Your task to perform on an android device: Open network settings Image 0: 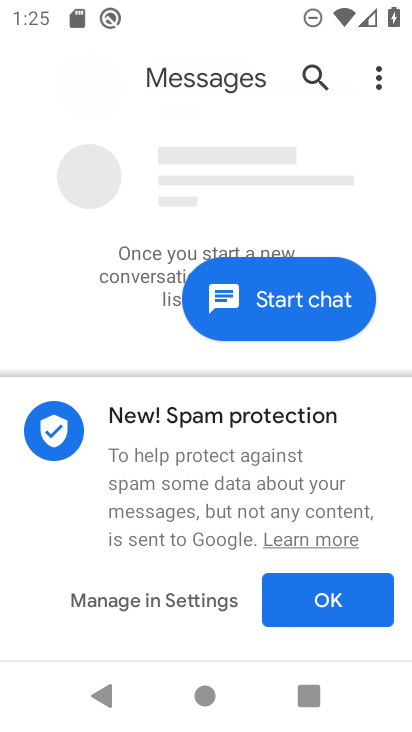
Step 0: press home button
Your task to perform on an android device: Open network settings Image 1: 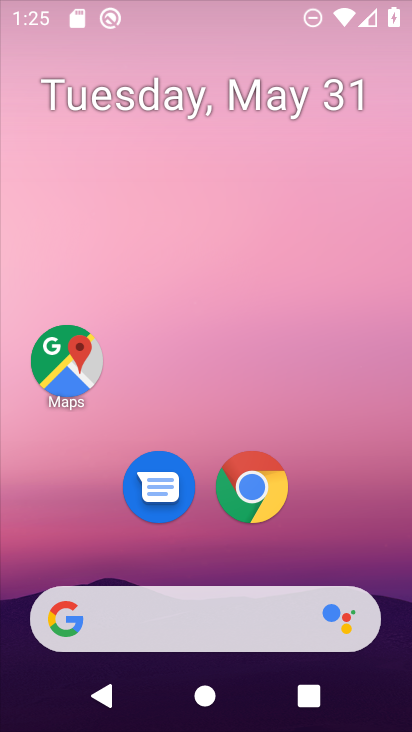
Step 1: drag from (66, 595) to (291, 24)
Your task to perform on an android device: Open network settings Image 2: 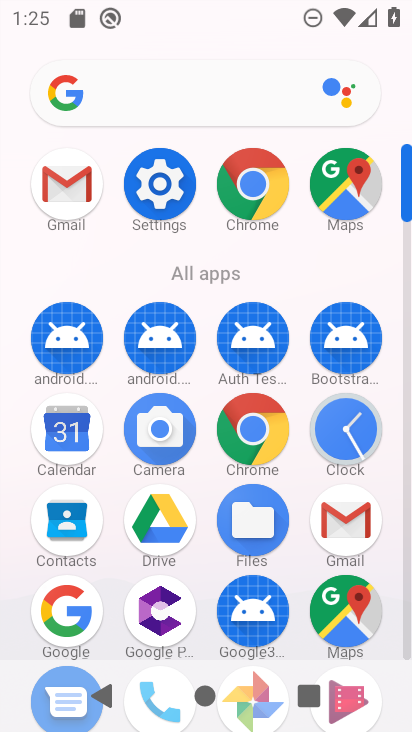
Step 2: drag from (211, 599) to (309, 226)
Your task to perform on an android device: Open network settings Image 3: 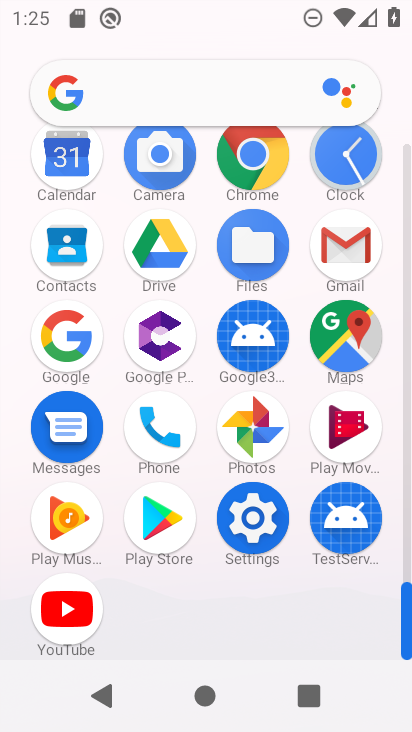
Step 3: click (255, 544)
Your task to perform on an android device: Open network settings Image 4: 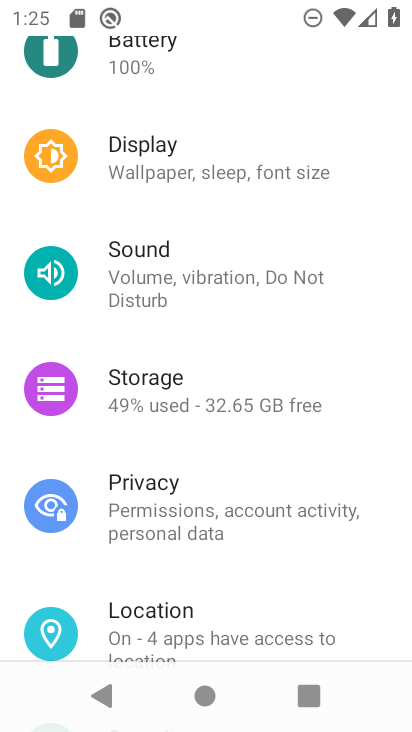
Step 4: drag from (271, 190) to (247, 601)
Your task to perform on an android device: Open network settings Image 5: 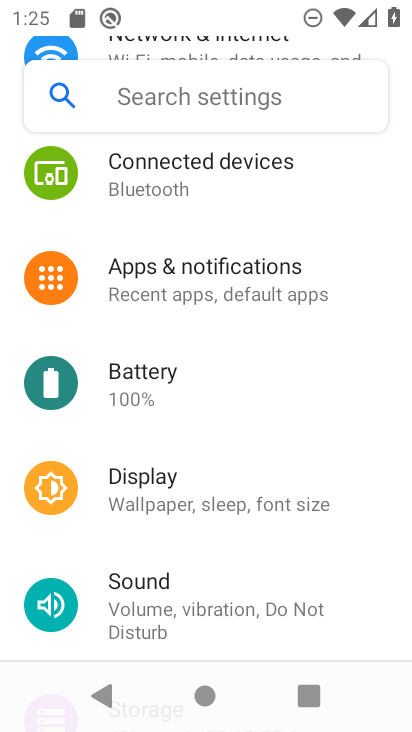
Step 5: drag from (267, 192) to (214, 587)
Your task to perform on an android device: Open network settings Image 6: 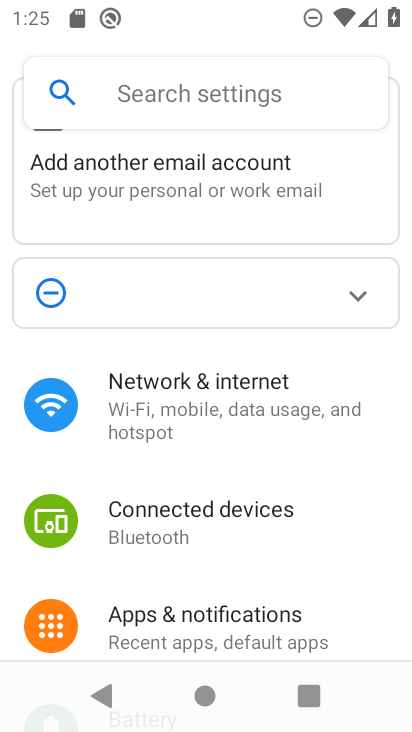
Step 6: click (248, 424)
Your task to perform on an android device: Open network settings Image 7: 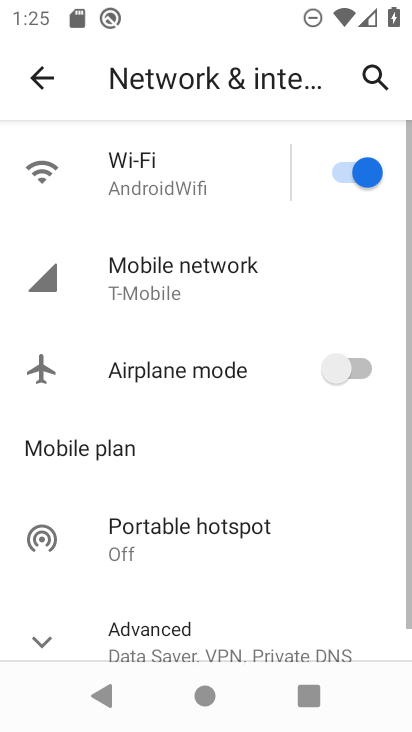
Step 7: click (261, 307)
Your task to perform on an android device: Open network settings Image 8: 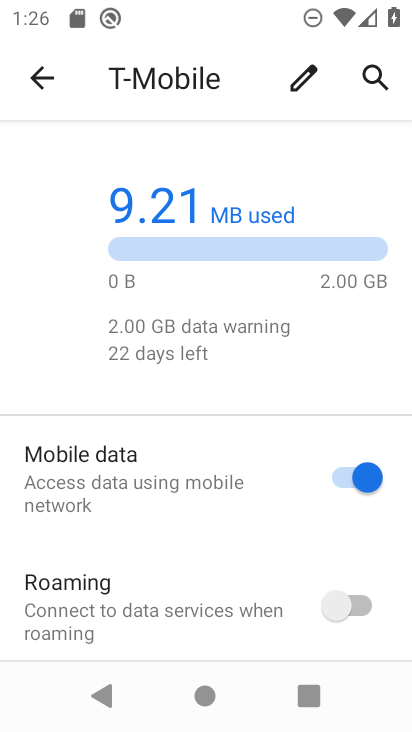
Step 8: task complete